Your task to perform on an android device: turn on location history Image 0: 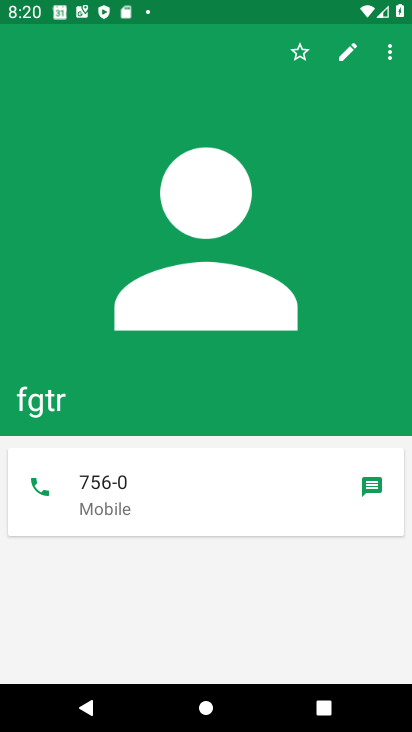
Step 0: press home button
Your task to perform on an android device: turn on location history Image 1: 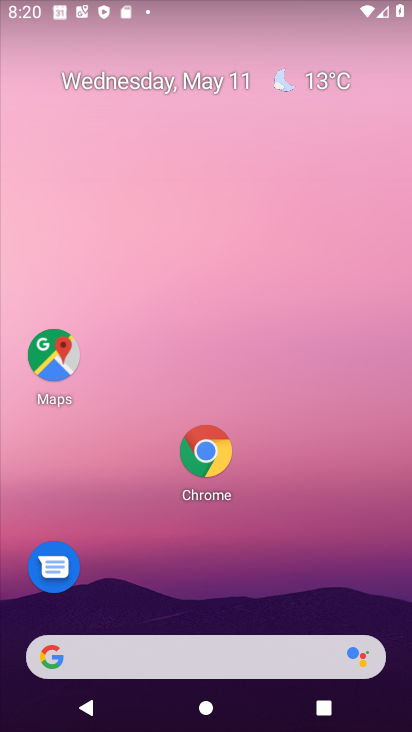
Step 1: click (52, 359)
Your task to perform on an android device: turn on location history Image 2: 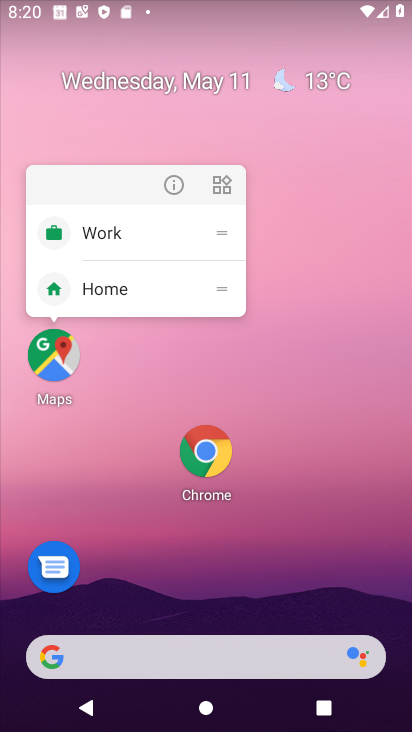
Step 2: click (60, 363)
Your task to perform on an android device: turn on location history Image 3: 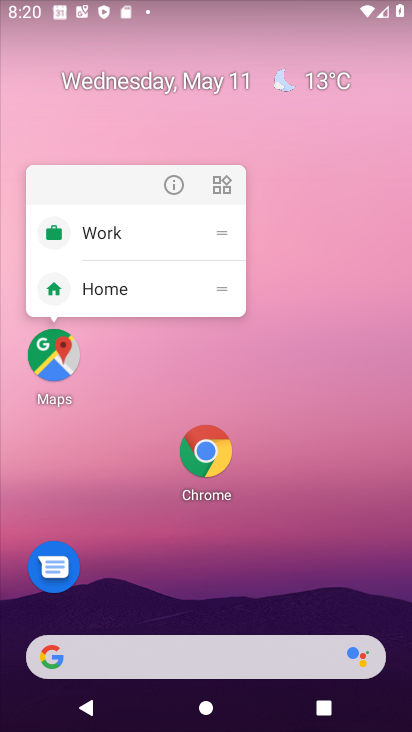
Step 3: click (54, 368)
Your task to perform on an android device: turn on location history Image 4: 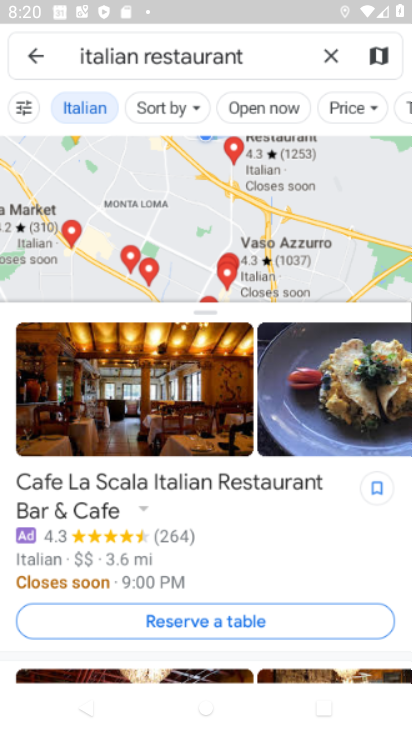
Step 4: click (34, 56)
Your task to perform on an android device: turn on location history Image 5: 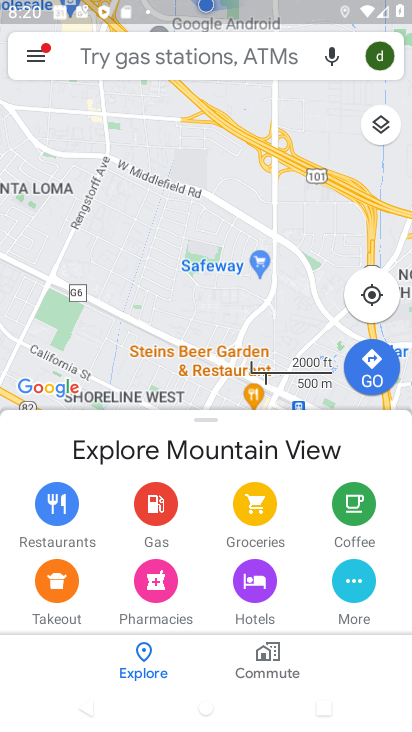
Step 5: click (36, 54)
Your task to perform on an android device: turn on location history Image 6: 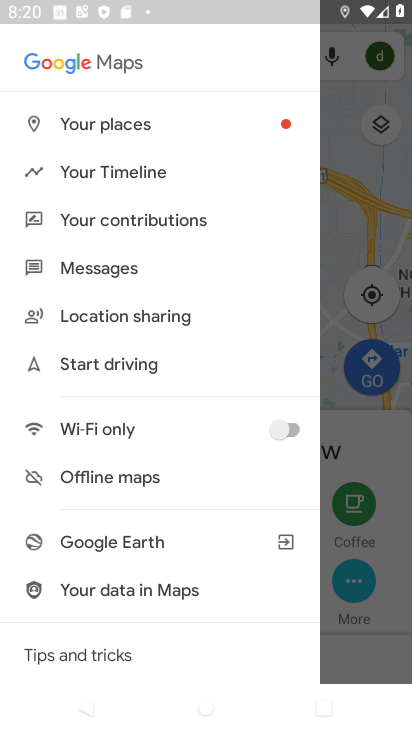
Step 6: click (161, 174)
Your task to perform on an android device: turn on location history Image 7: 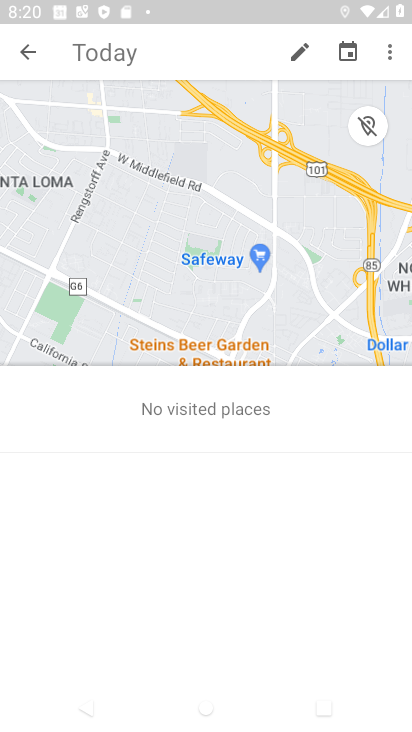
Step 7: click (394, 48)
Your task to perform on an android device: turn on location history Image 8: 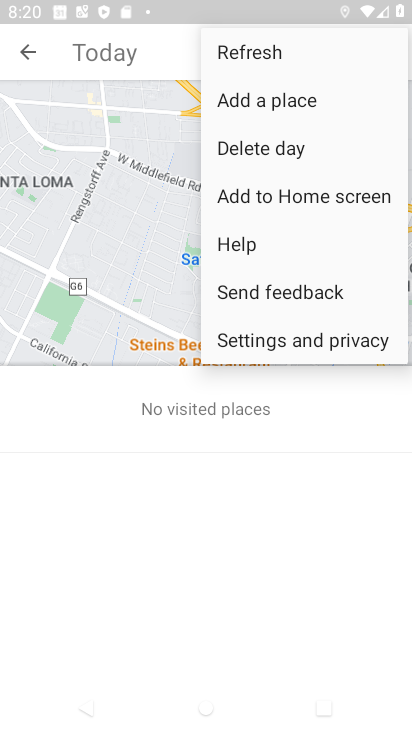
Step 8: click (303, 342)
Your task to perform on an android device: turn on location history Image 9: 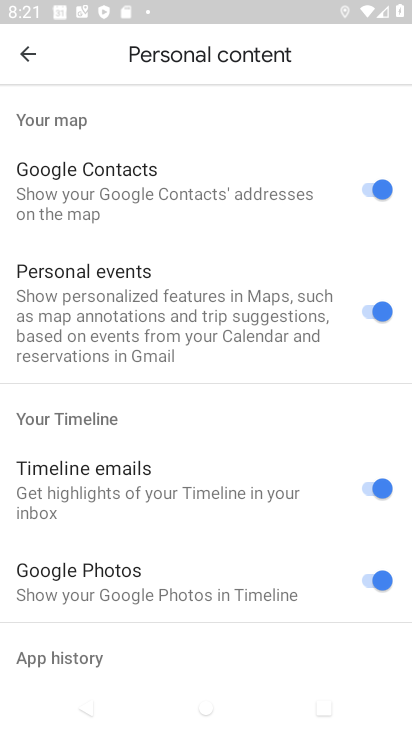
Step 9: drag from (145, 615) to (353, 130)
Your task to perform on an android device: turn on location history Image 10: 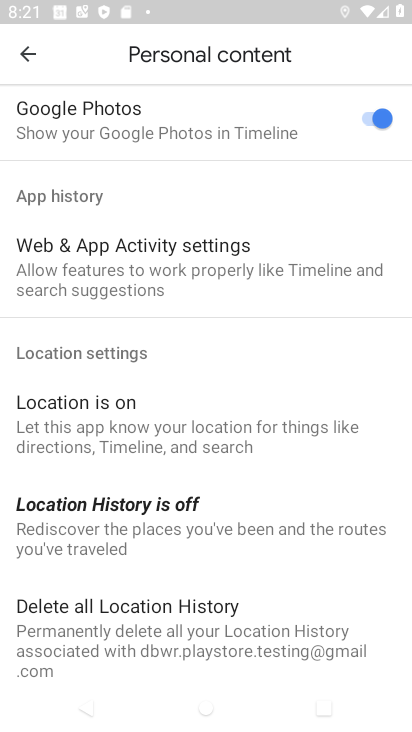
Step 10: click (162, 521)
Your task to perform on an android device: turn on location history Image 11: 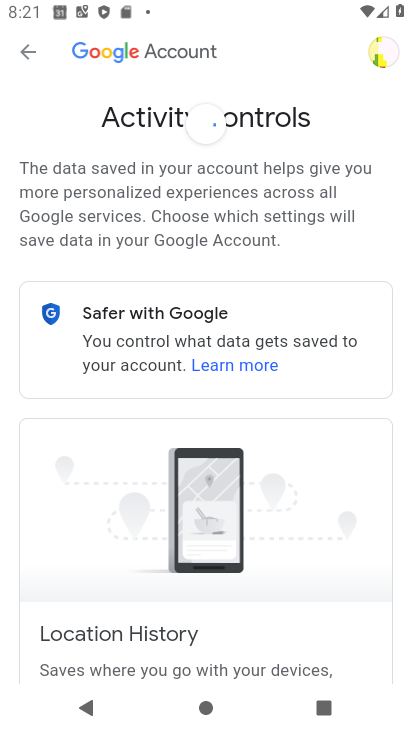
Step 11: drag from (116, 577) to (278, 239)
Your task to perform on an android device: turn on location history Image 12: 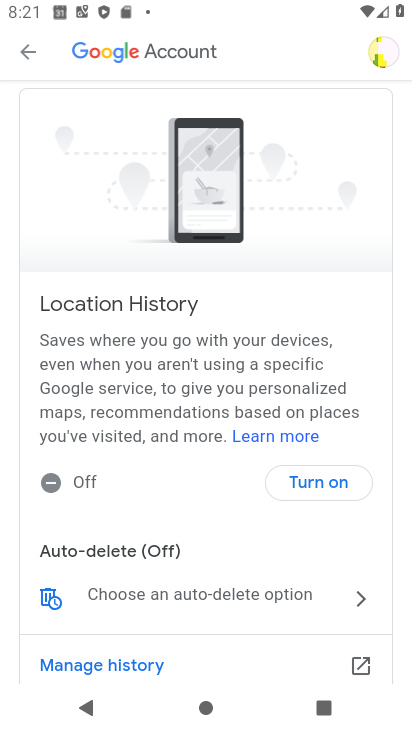
Step 12: click (339, 484)
Your task to perform on an android device: turn on location history Image 13: 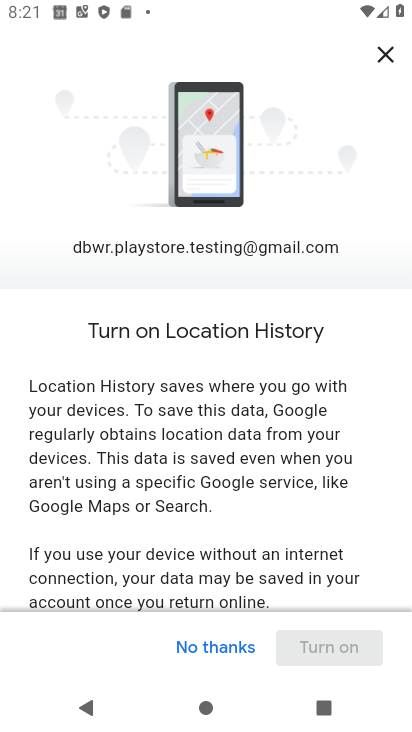
Step 13: drag from (229, 563) to (387, 273)
Your task to perform on an android device: turn on location history Image 14: 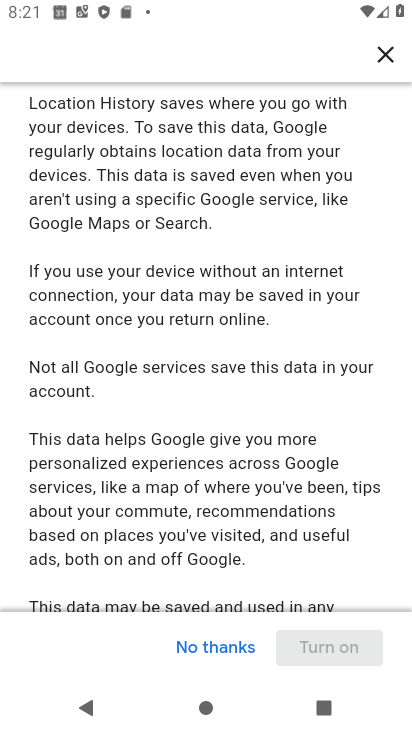
Step 14: drag from (221, 539) to (393, 160)
Your task to perform on an android device: turn on location history Image 15: 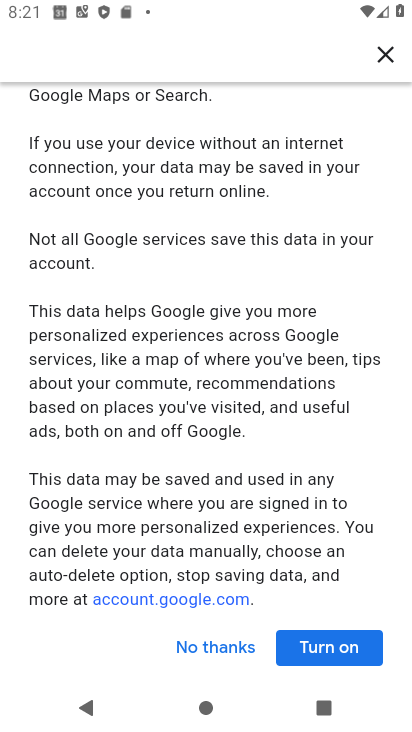
Step 15: click (321, 653)
Your task to perform on an android device: turn on location history Image 16: 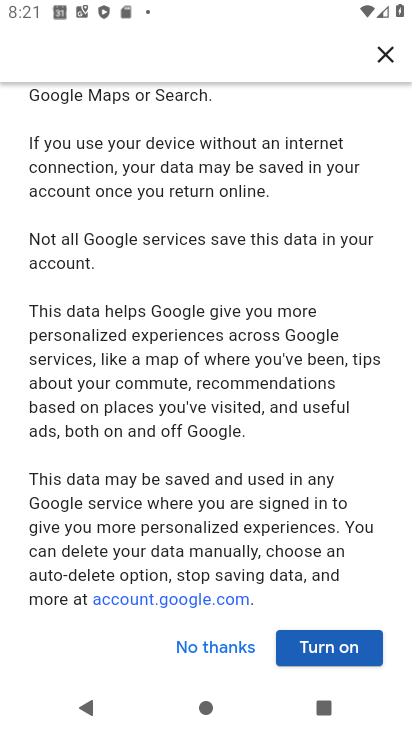
Step 16: click (338, 648)
Your task to perform on an android device: turn on location history Image 17: 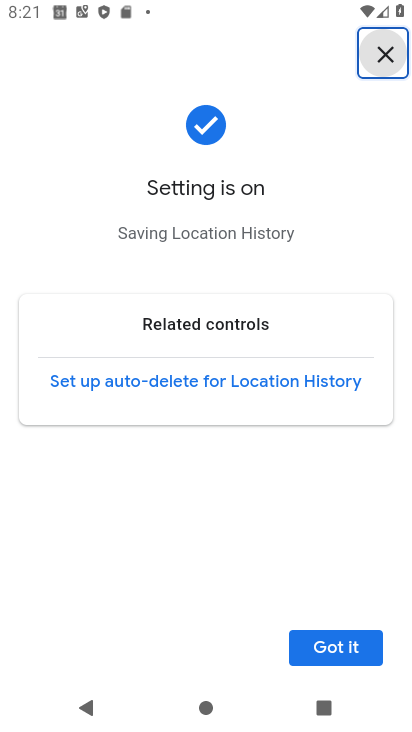
Step 17: click (383, 53)
Your task to perform on an android device: turn on location history Image 18: 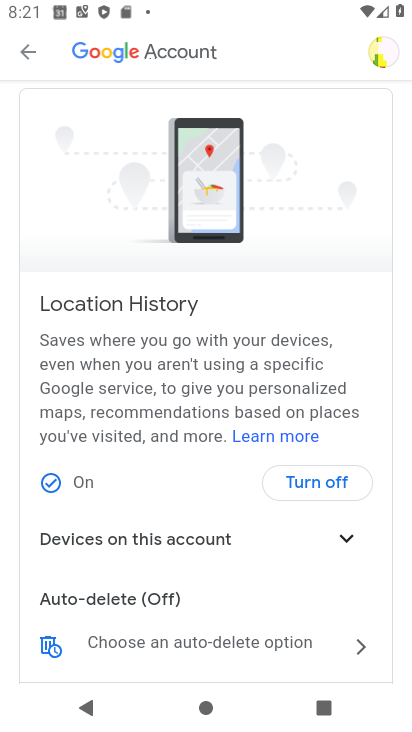
Step 18: task complete